Your task to perform on an android device: uninstall "Venmo" Image 0: 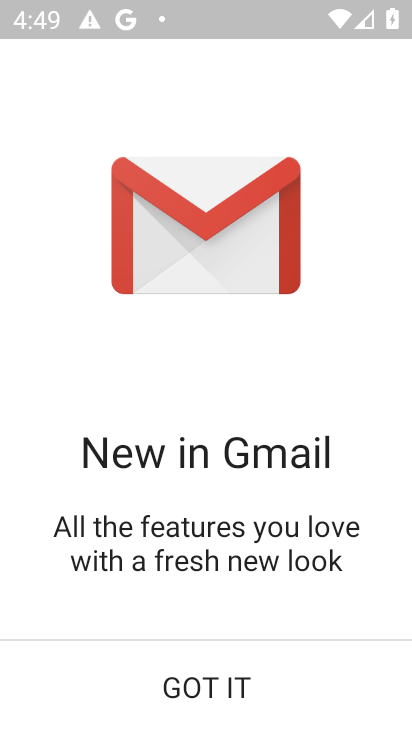
Step 0: press back button
Your task to perform on an android device: uninstall "Venmo" Image 1: 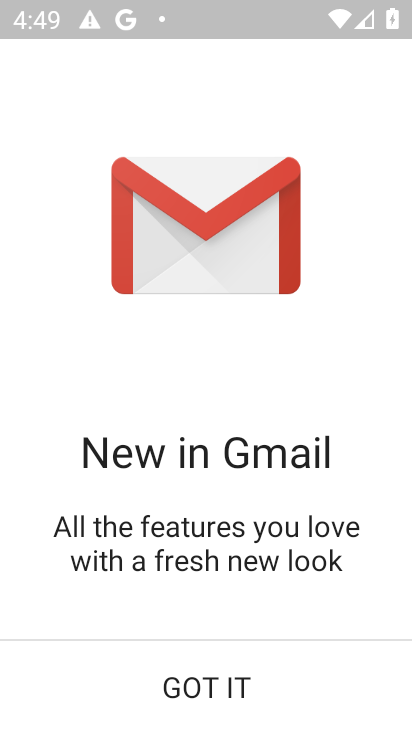
Step 1: press back button
Your task to perform on an android device: uninstall "Venmo" Image 2: 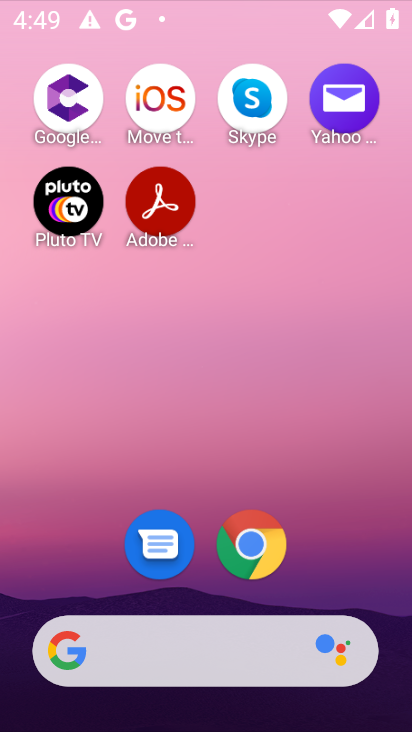
Step 2: press back button
Your task to perform on an android device: uninstall "Venmo" Image 3: 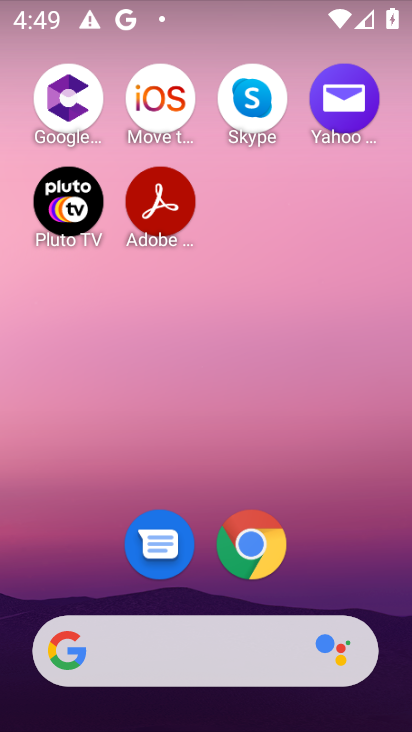
Step 3: drag from (229, 590) to (193, 201)
Your task to perform on an android device: uninstall "Venmo" Image 4: 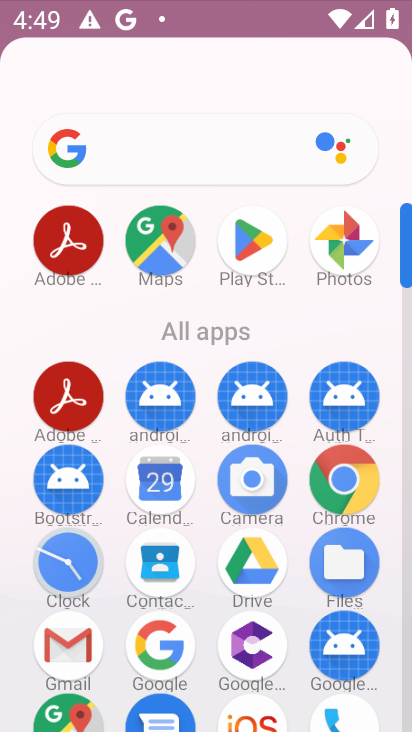
Step 4: drag from (215, 558) to (167, 169)
Your task to perform on an android device: uninstall "Venmo" Image 5: 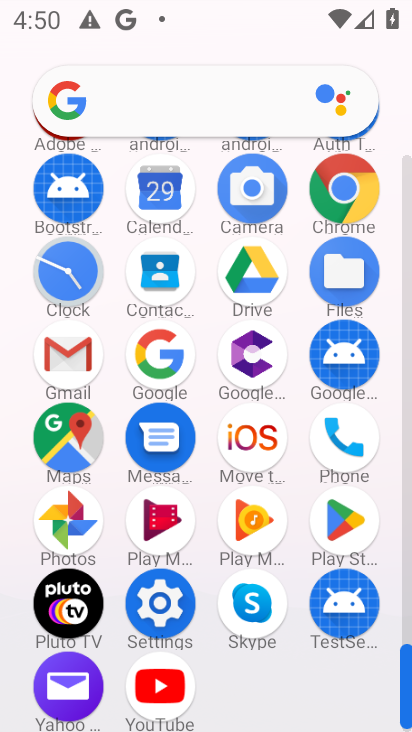
Step 5: drag from (215, 441) to (231, 101)
Your task to perform on an android device: uninstall "Venmo" Image 6: 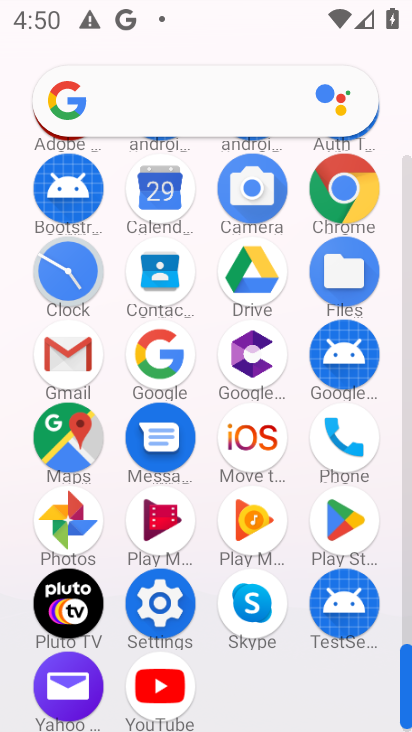
Step 6: click (348, 514)
Your task to perform on an android device: uninstall "Venmo" Image 7: 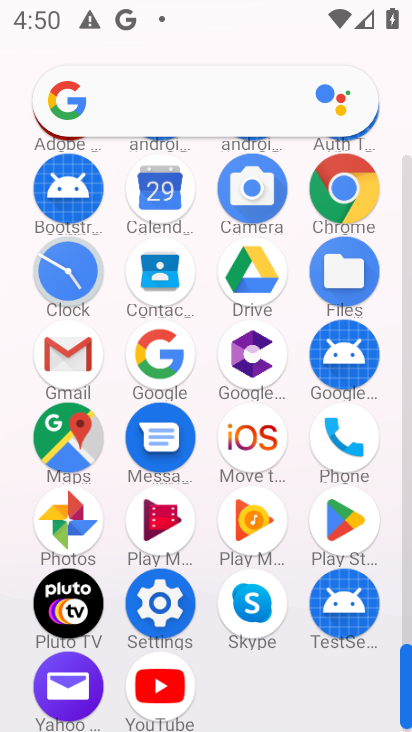
Step 7: click (347, 508)
Your task to perform on an android device: uninstall "Venmo" Image 8: 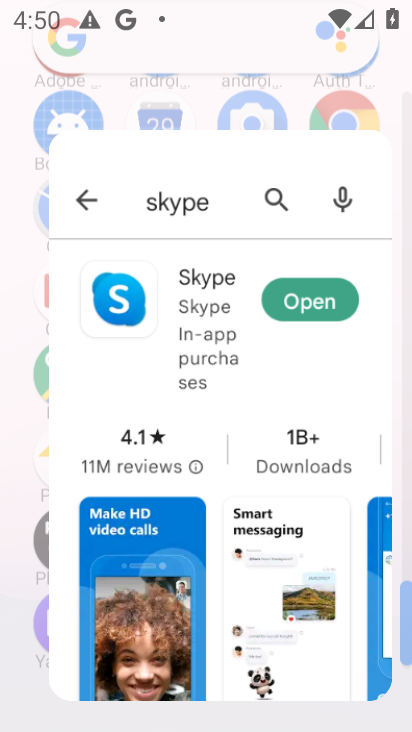
Step 8: click (348, 508)
Your task to perform on an android device: uninstall "Venmo" Image 9: 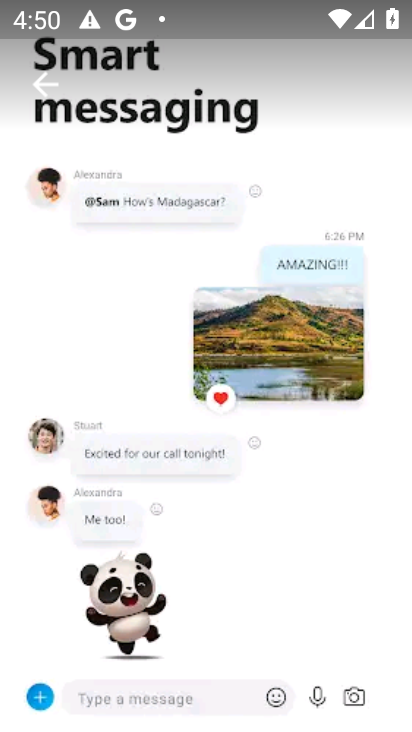
Step 9: click (71, 187)
Your task to perform on an android device: uninstall "Venmo" Image 10: 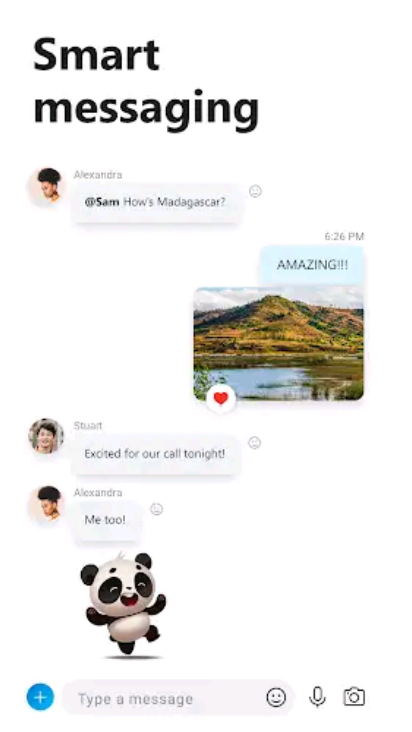
Step 10: click (41, 72)
Your task to perform on an android device: uninstall "Venmo" Image 11: 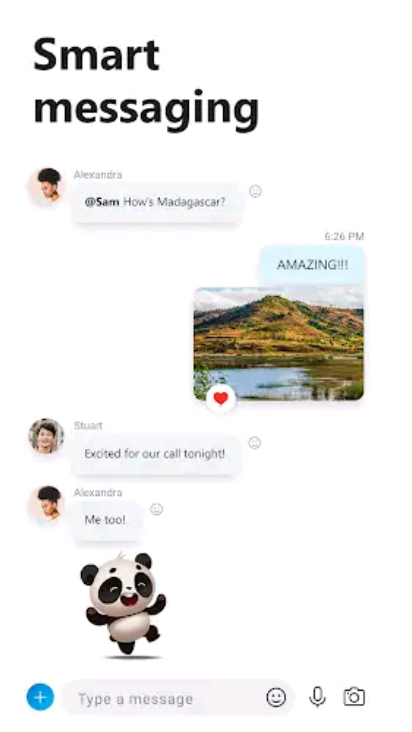
Step 11: click (41, 72)
Your task to perform on an android device: uninstall "Venmo" Image 12: 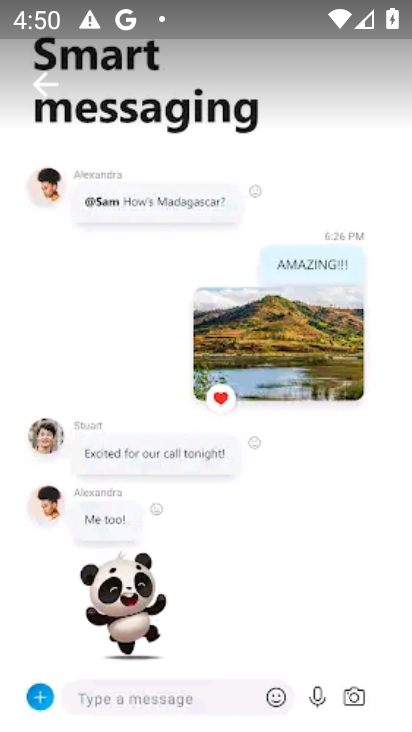
Step 12: click (38, 77)
Your task to perform on an android device: uninstall "Venmo" Image 13: 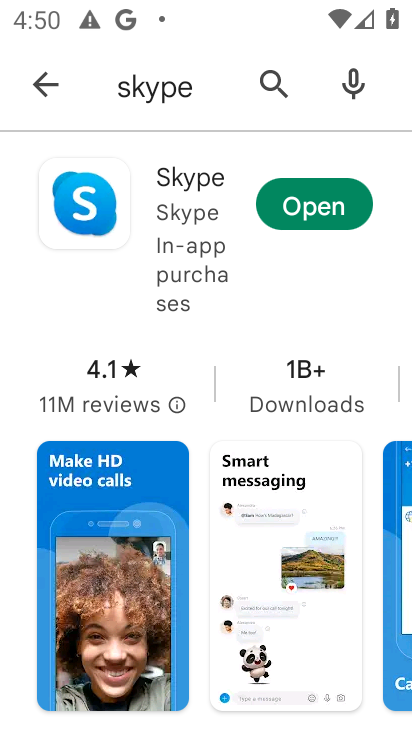
Step 13: click (38, 79)
Your task to perform on an android device: uninstall "Venmo" Image 14: 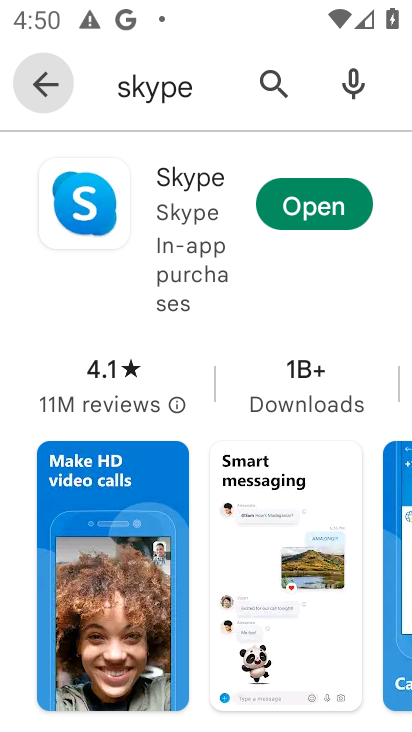
Step 14: click (41, 79)
Your task to perform on an android device: uninstall "Venmo" Image 15: 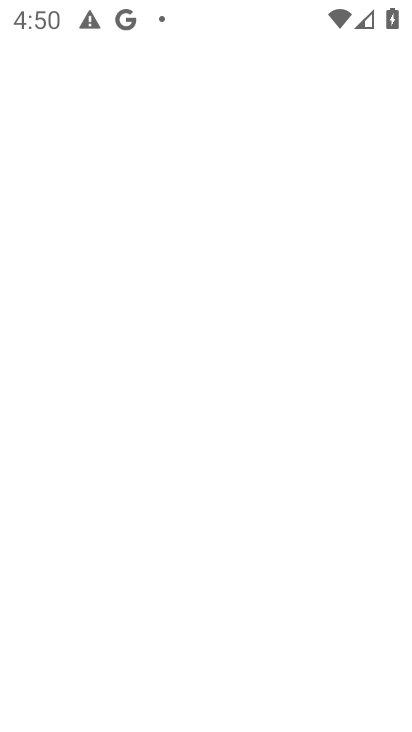
Step 15: click (41, 79)
Your task to perform on an android device: uninstall "Venmo" Image 16: 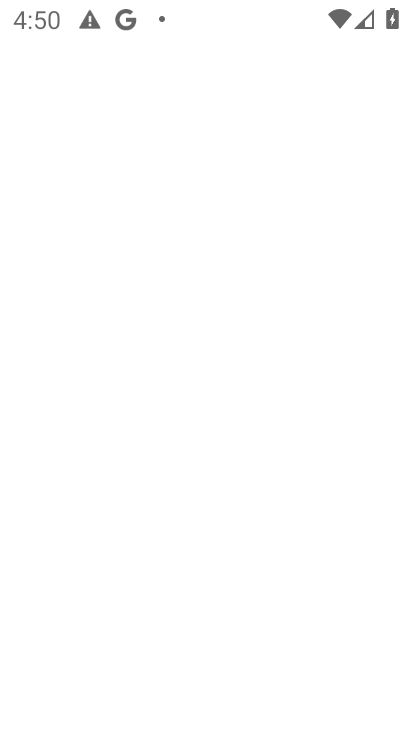
Step 16: click (42, 79)
Your task to perform on an android device: uninstall "Venmo" Image 17: 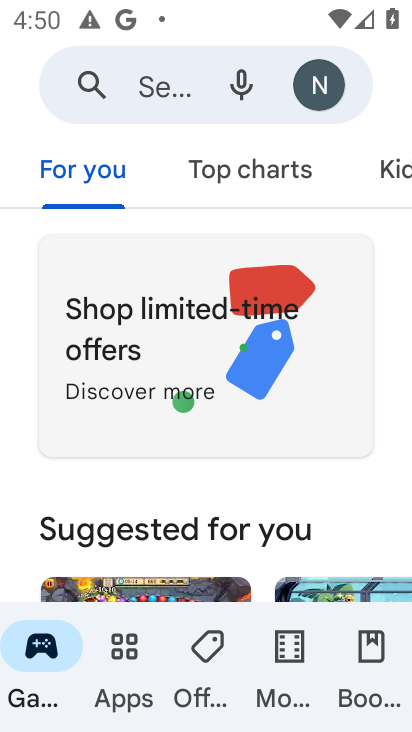
Step 17: click (139, 85)
Your task to perform on an android device: uninstall "Venmo" Image 18: 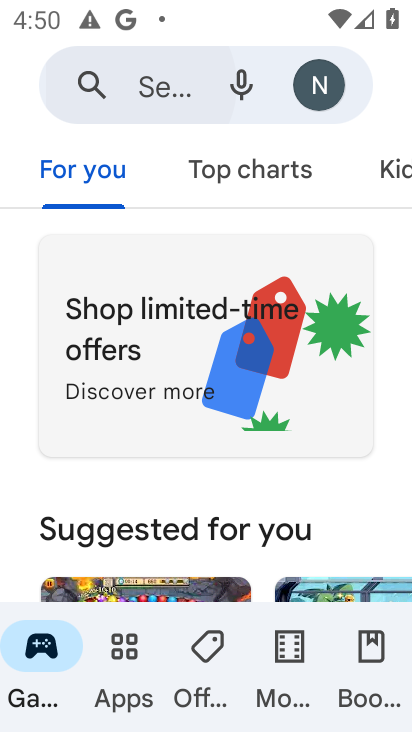
Step 18: click (140, 84)
Your task to perform on an android device: uninstall "Venmo" Image 19: 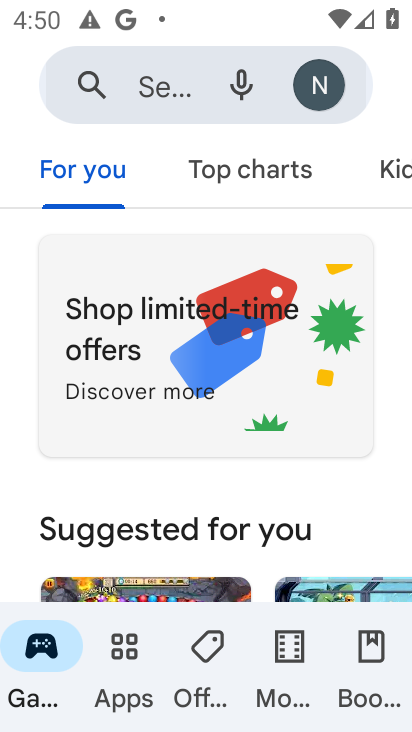
Step 19: click (141, 84)
Your task to perform on an android device: uninstall "Venmo" Image 20: 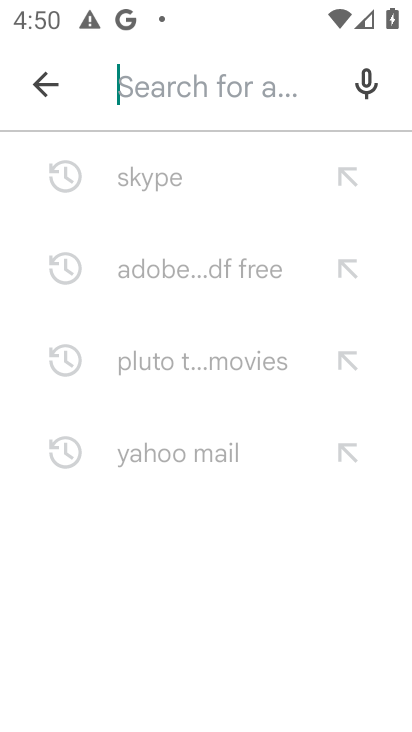
Step 20: click (144, 87)
Your task to perform on an android device: uninstall "Venmo" Image 21: 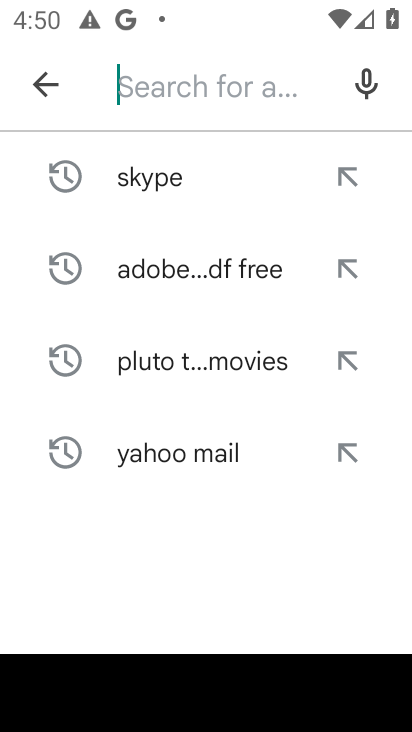
Step 21: click (145, 88)
Your task to perform on an android device: uninstall "Venmo" Image 22: 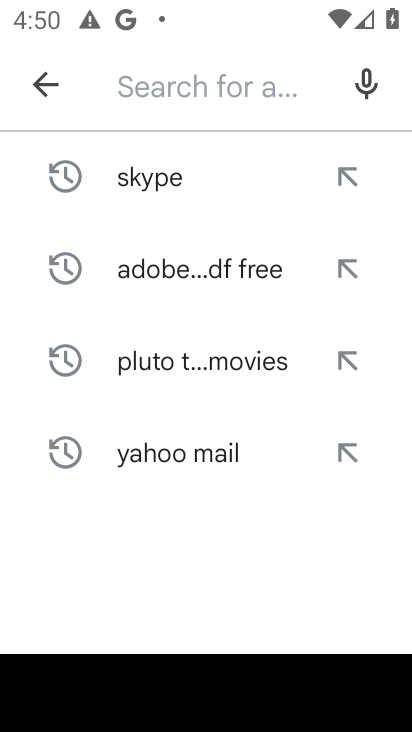
Step 22: click (146, 88)
Your task to perform on an android device: uninstall "Venmo" Image 23: 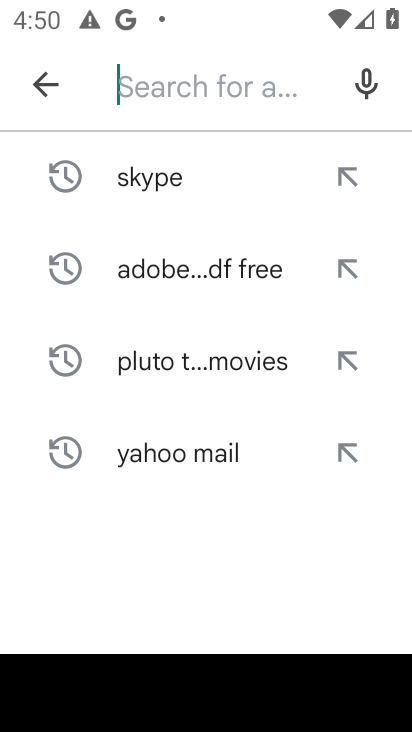
Step 23: type "Venmo"
Your task to perform on an android device: uninstall "Venmo" Image 24: 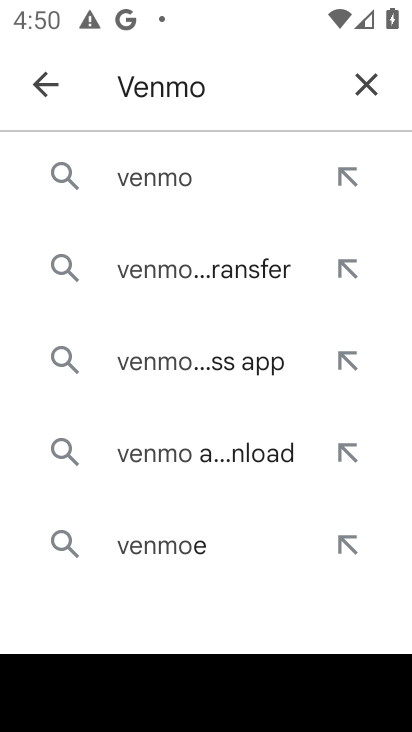
Step 24: click (183, 177)
Your task to perform on an android device: uninstall "Venmo" Image 25: 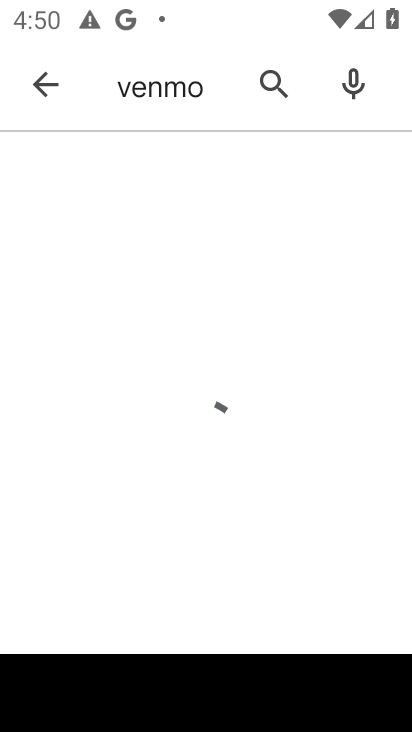
Step 25: click (184, 178)
Your task to perform on an android device: uninstall "Venmo" Image 26: 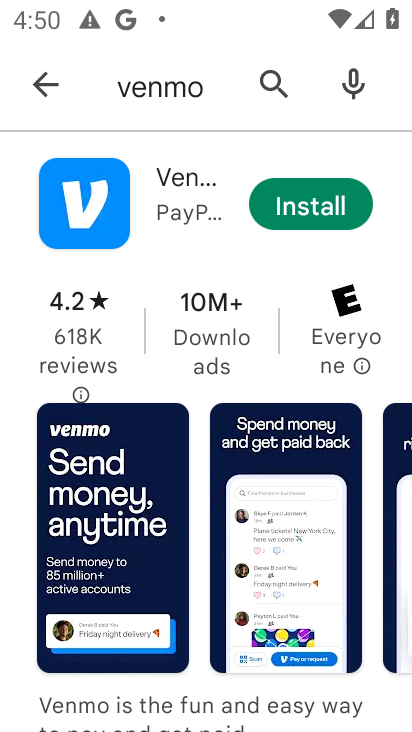
Step 26: click (334, 209)
Your task to perform on an android device: uninstall "Venmo" Image 27: 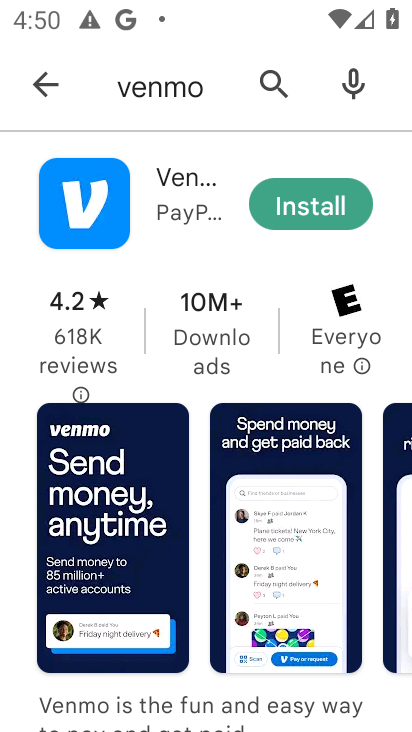
Step 27: click (334, 209)
Your task to perform on an android device: uninstall "Venmo" Image 28: 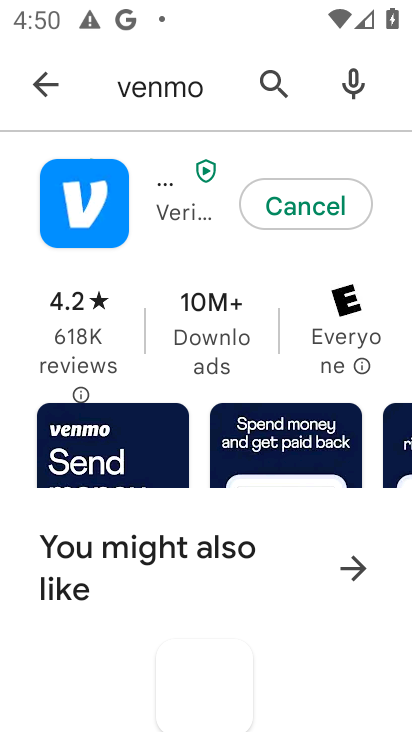
Step 28: click (334, 208)
Your task to perform on an android device: uninstall "Venmo" Image 29: 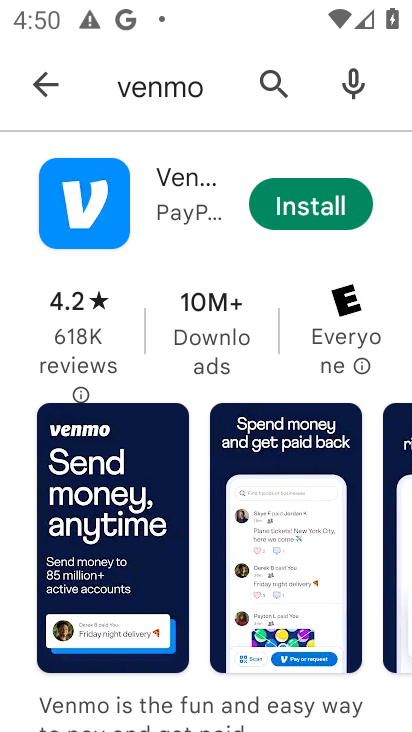
Step 29: click (275, 210)
Your task to perform on an android device: uninstall "Venmo" Image 30: 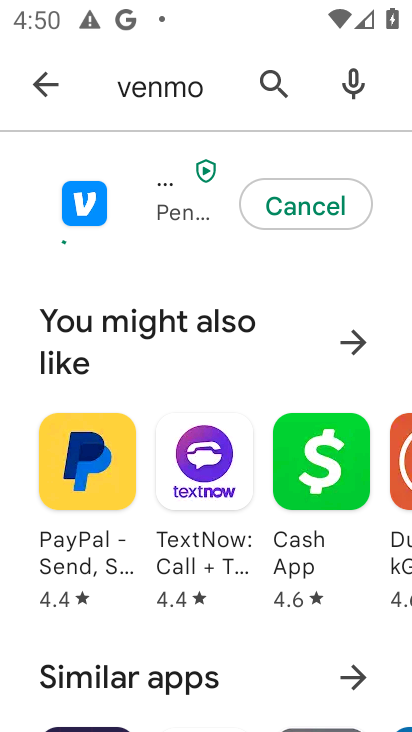
Step 30: click (295, 207)
Your task to perform on an android device: uninstall "Venmo" Image 31: 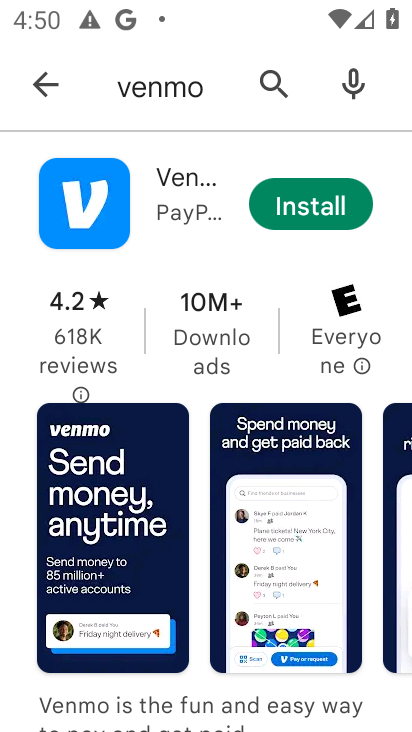
Step 31: task complete